Your task to perform on an android device: open wifi settings Image 0: 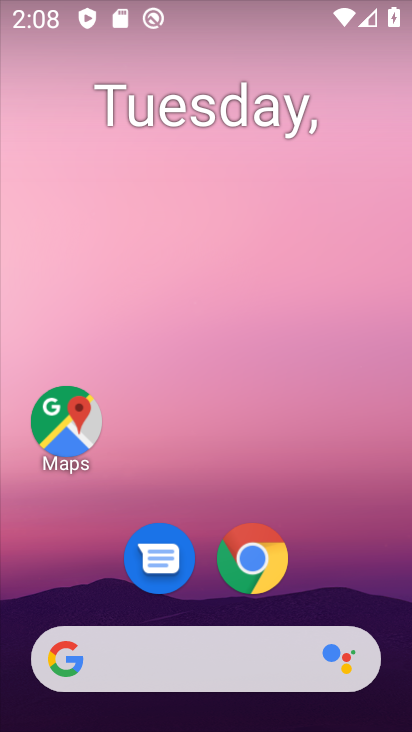
Step 0: drag from (85, 581) to (207, 115)
Your task to perform on an android device: open wifi settings Image 1: 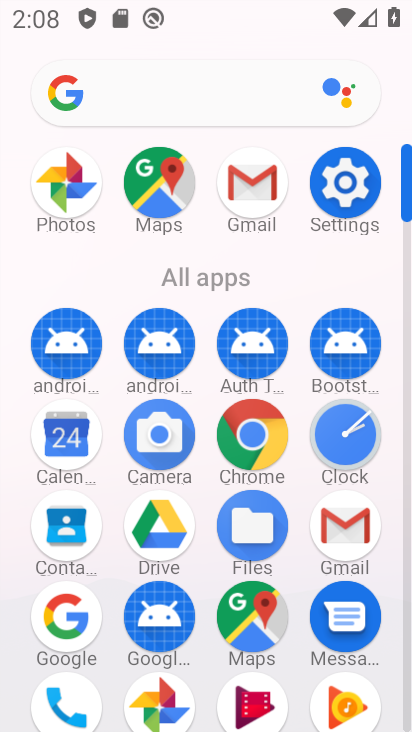
Step 1: drag from (146, 553) to (233, 304)
Your task to perform on an android device: open wifi settings Image 2: 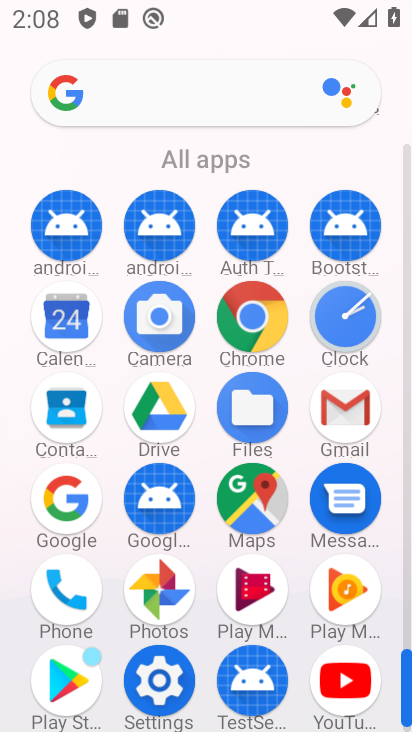
Step 2: click (161, 689)
Your task to perform on an android device: open wifi settings Image 3: 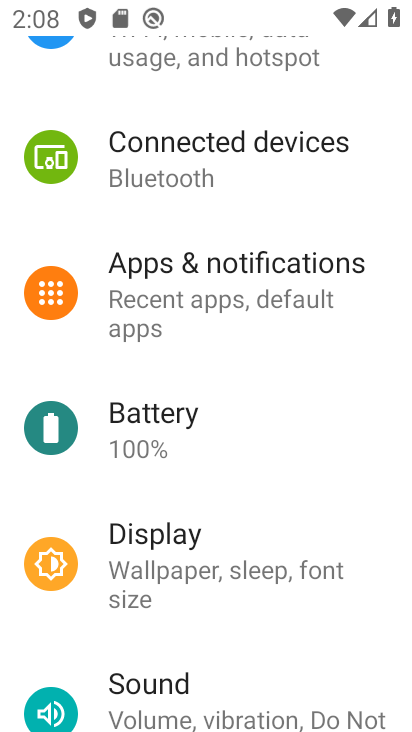
Step 3: drag from (334, 183) to (299, 671)
Your task to perform on an android device: open wifi settings Image 4: 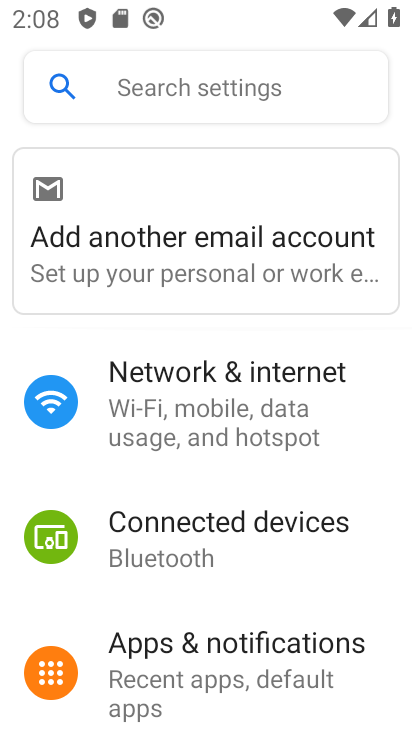
Step 4: click (267, 420)
Your task to perform on an android device: open wifi settings Image 5: 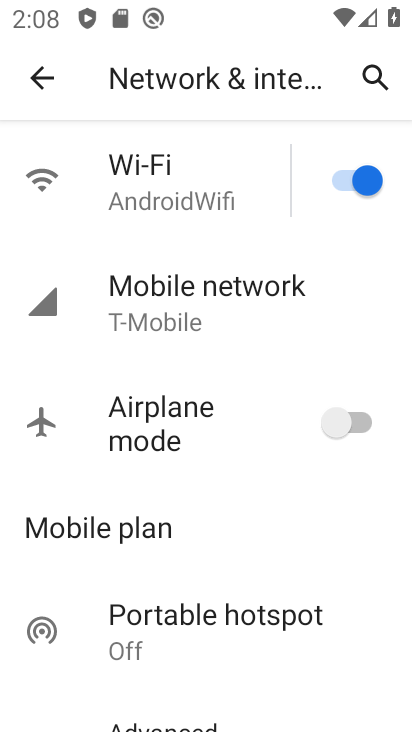
Step 5: click (196, 218)
Your task to perform on an android device: open wifi settings Image 6: 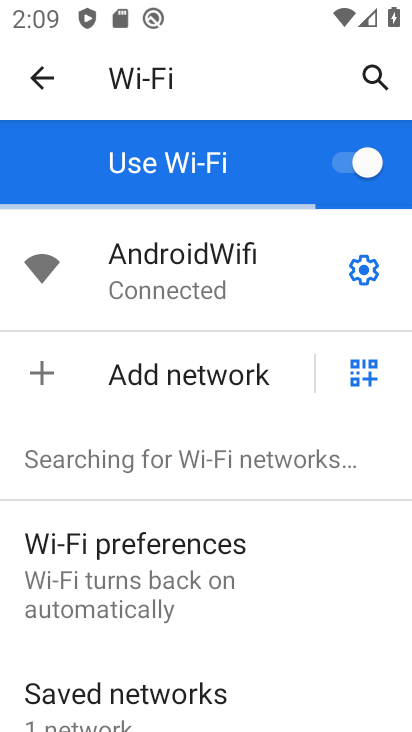
Step 6: task complete